Your task to perform on an android device: Open privacy settings Image 0: 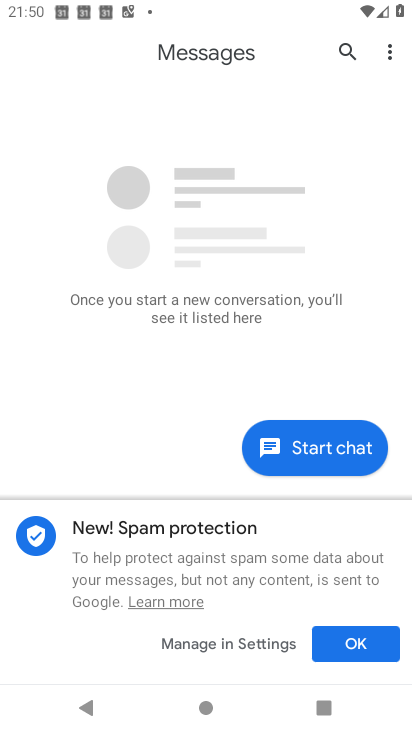
Step 0: press home button
Your task to perform on an android device: Open privacy settings Image 1: 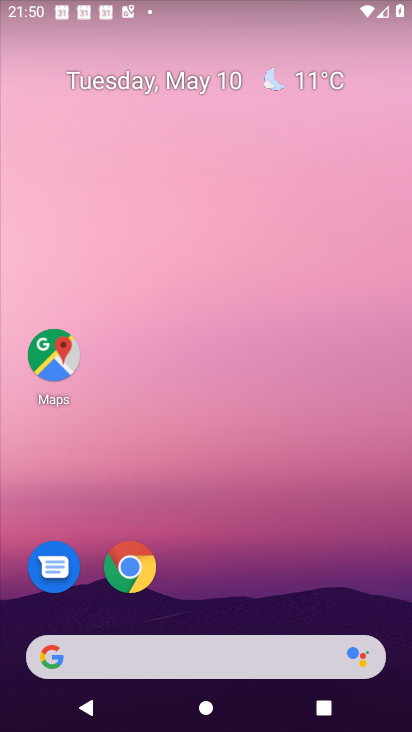
Step 1: drag from (157, 633) to (243, 269)
Your task to perform on an android device: Open privacy settings Image 2: 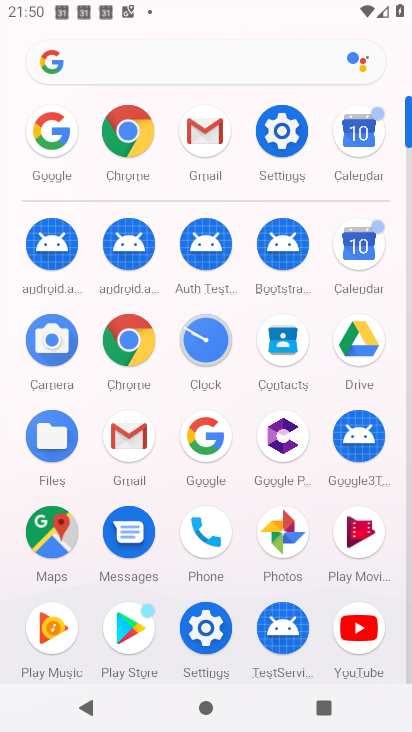
Step 2: click (272, 142)
Your task to perform on an android device: Open privacy settings Image 3: 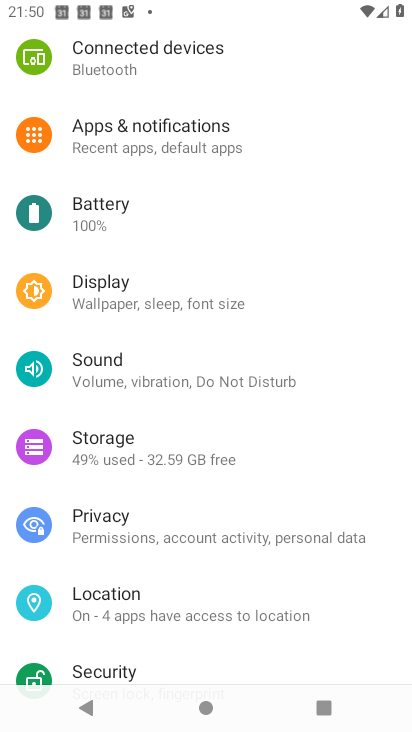
Step 3: click (155, 537)
Your task to perform on an android device: Open privacy settings Image 4: 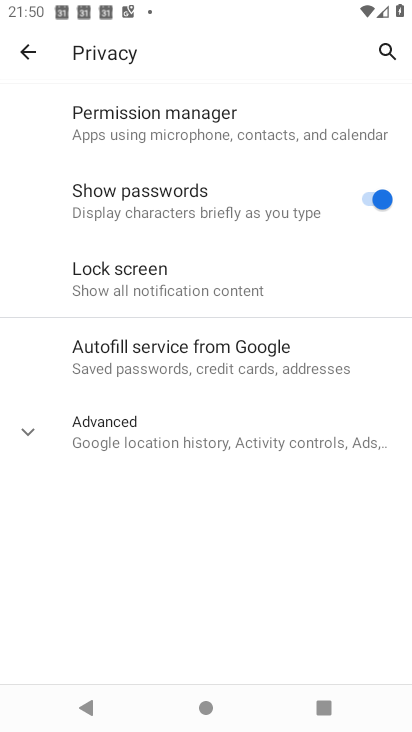
Step 4: click (143, 413)
Your task to perform on an android device: Open privacy settings Image 5: 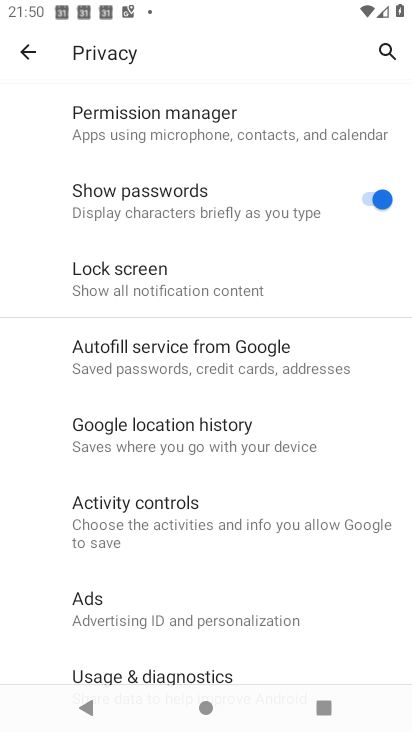
Step 5: task complete